Your task to perform on an android device: set an alarm Image 0: 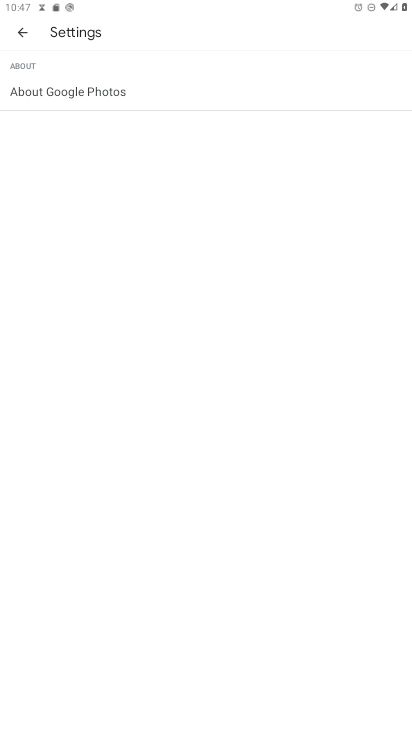
Step 0: press home button
Your task to perform on an android device: set an alarm Image 1: 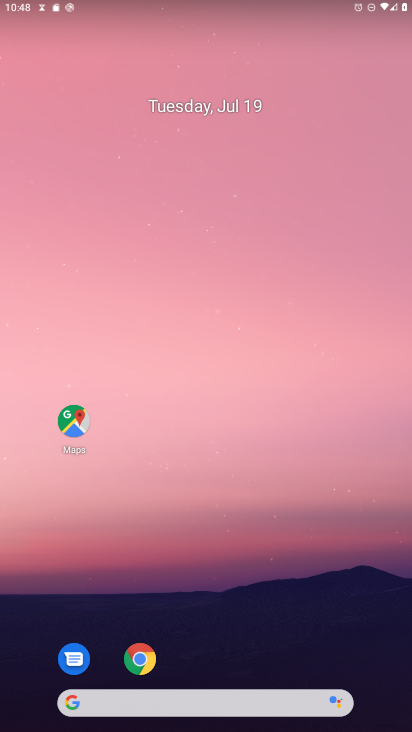
Step 1: drag from (268, 639) to (237, 93)
Your task to perform on an android device: set an alarm Image 2: 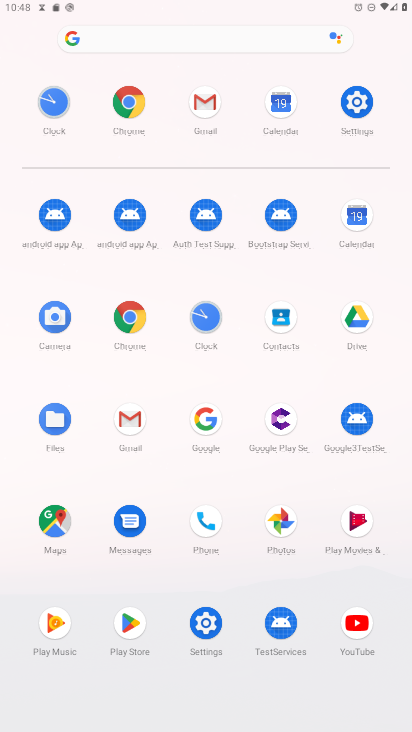
Step 2: click (204, 320)
Your task to perform on an android device: set an alarm Image 3: 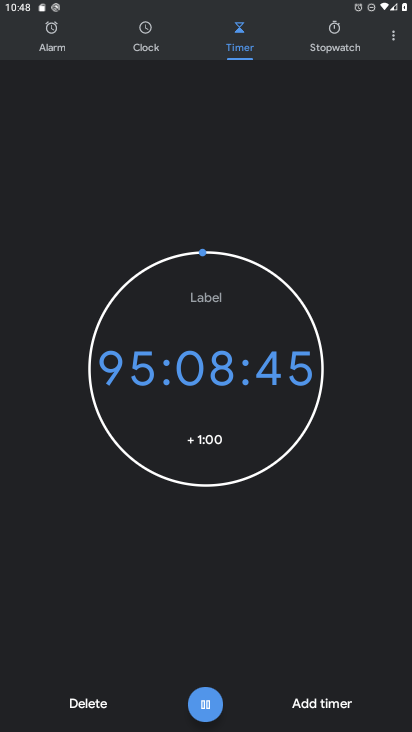
Step 3: click (73, 32)
Your task to perform on an android device: set an alarm Image 4: 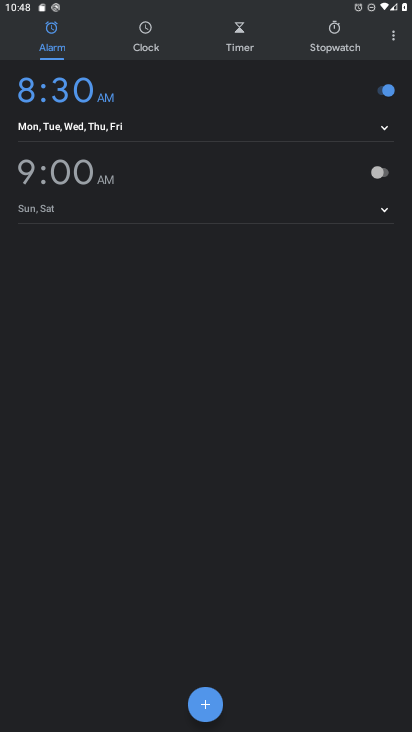
Step 4: click (379, 178)
Your task to perform on an android device: set an alarm Image 5: 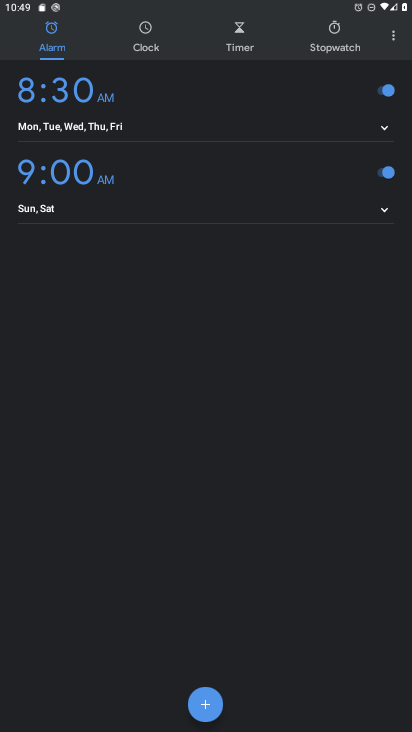
Step 5: task complete